Your task to perform on an android device: check google app version Image 0: 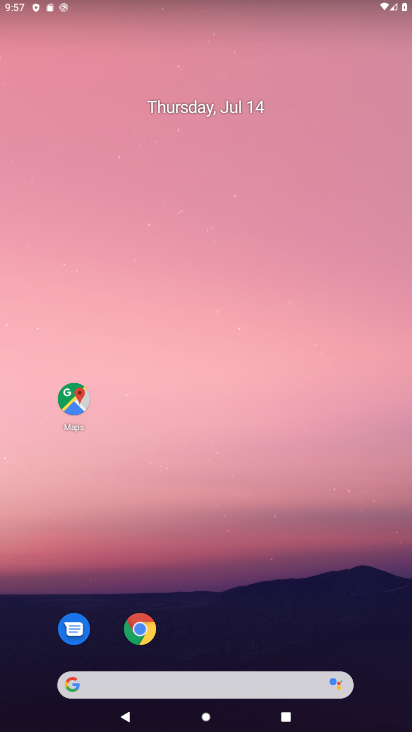
Step 0: drag from (224, 642) to (221, 225)
Your task to perform on an android device: check google app version Image 1: 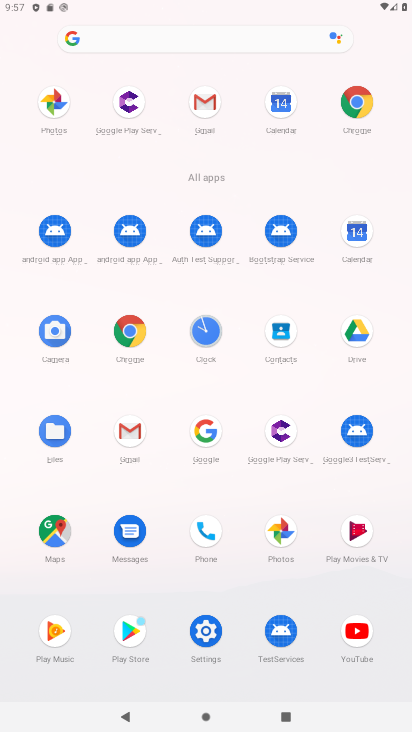
Step 1: click (211, 442)
Your task to perform on an android device: check google app version Image 2: 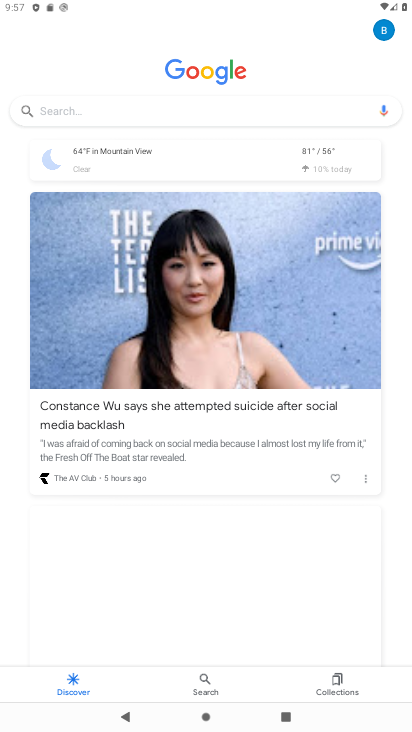
Step 2: click (389, 31)
Your task to perform on an android device: check google app version Image 3: 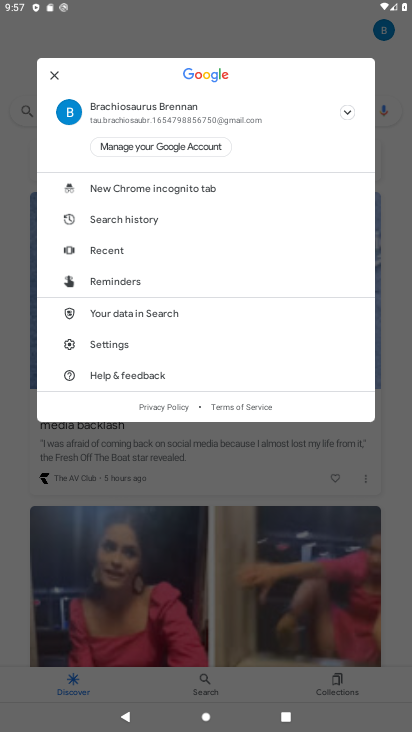
Step 3: click (133, 345)
Your task to perform on an android device: check google app version Image 4: 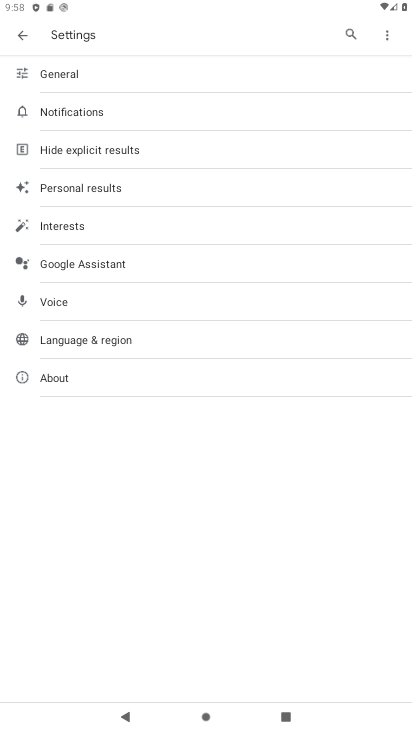
Step 4: click (118, 371)
Your task to perform on an android device: check google app version Image 5: 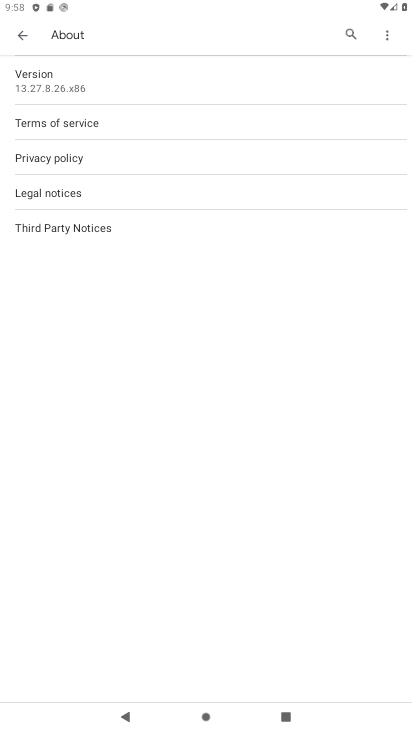
Step 5: click (120, 84)
Your task to perform on an android device: check google app version Image 6: 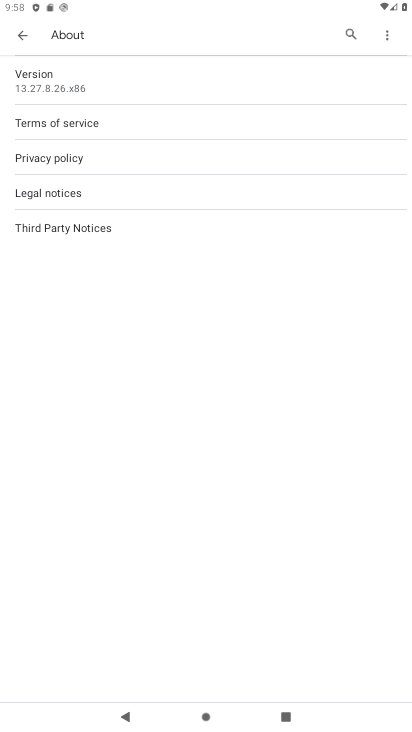
Step 6: task complete